Your task to perform on an android device: toggle notification dots Image 0: 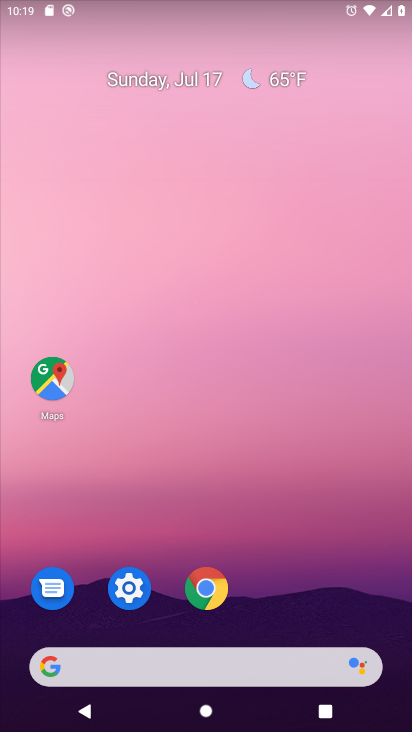
Step 0: click (296, 116)
Your task to perform on an android device: toggle notification dots Image 1: 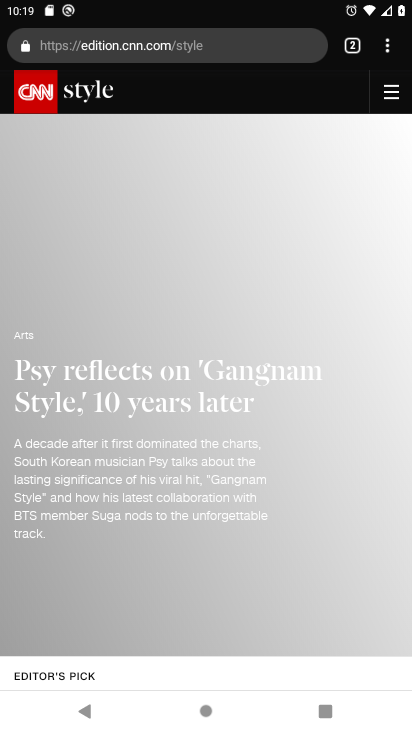
Step 1: click (388, 50)
Your task to perform on an android device: toggle notification dots Image 2: 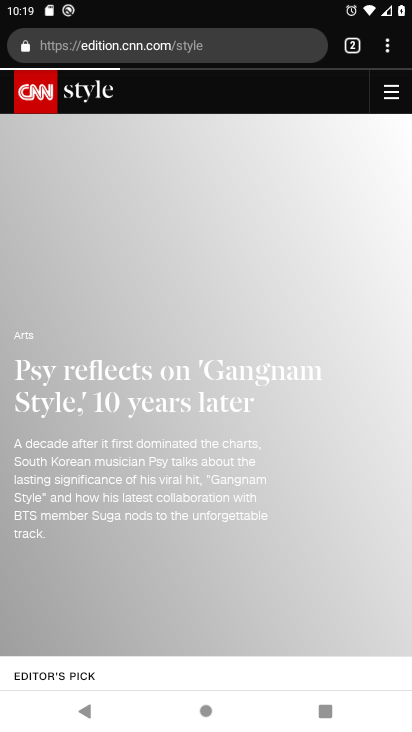
Step 2: press back button
Your task to perform on an android device: toggle notification dots Image 3: 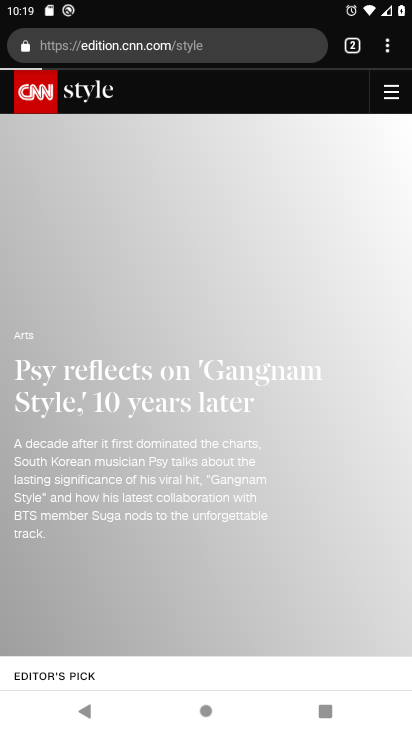
Step 3: press back button
Your task to perform on an android device: toggle notification dots Image 4: 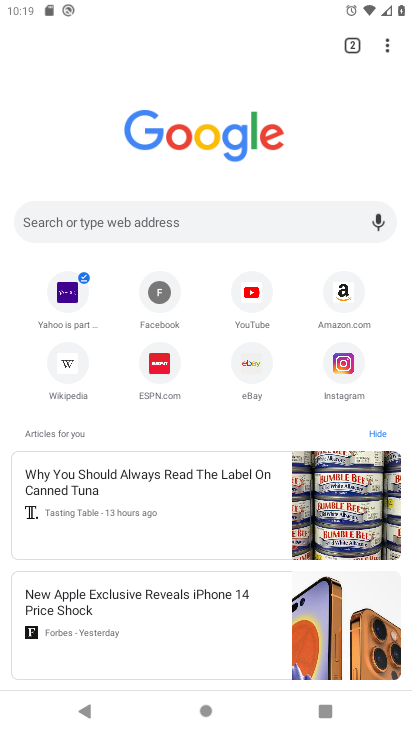
Step 4: press home button
Your task to perform on an android device: toggle notification dots Image 5: 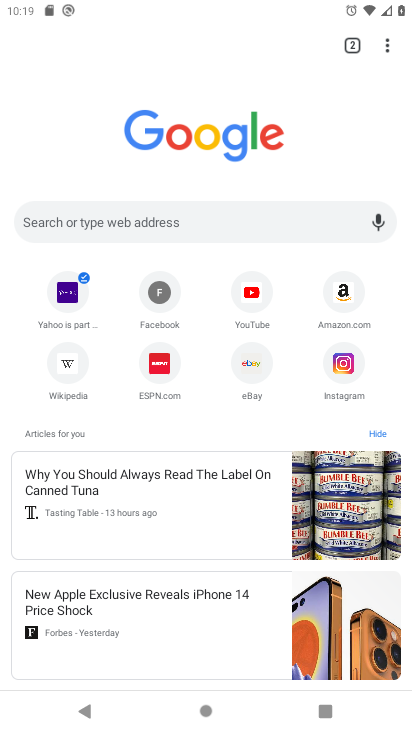
Step 5: press home button
Your task to perform on an android device: toggle notification dots Image 6: 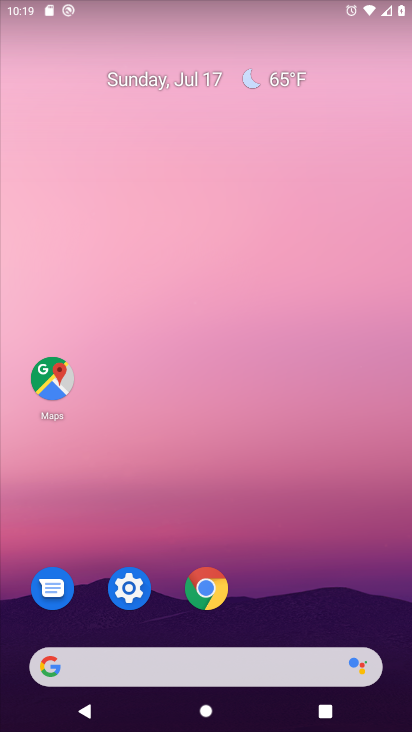
Step 6: drag from (235, 519) to (190, 94)
Your task to perform on an android device: toggle notification dots Image 7: 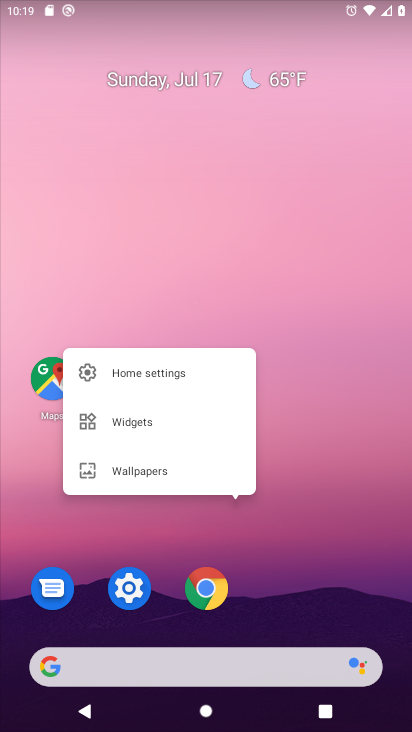
Step 7: drag from (213, 532) to (213, 24)
Your task to perform on an android device: toggle notification dots Image 8: 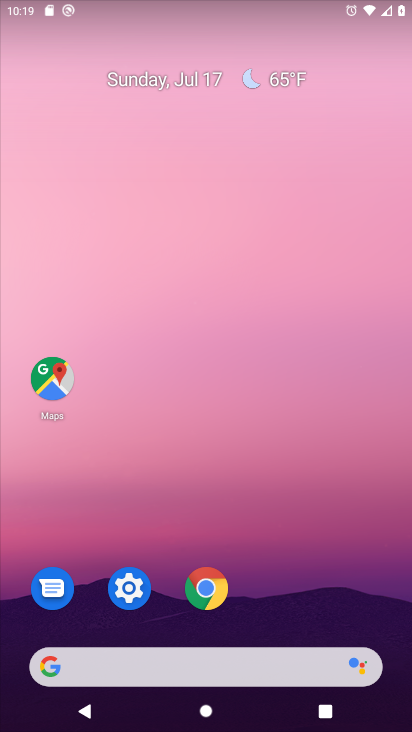
Step 8: drag from (221, 462) to (223, 40)
Your task to perform on an android device: toggle notification dots Image 9: 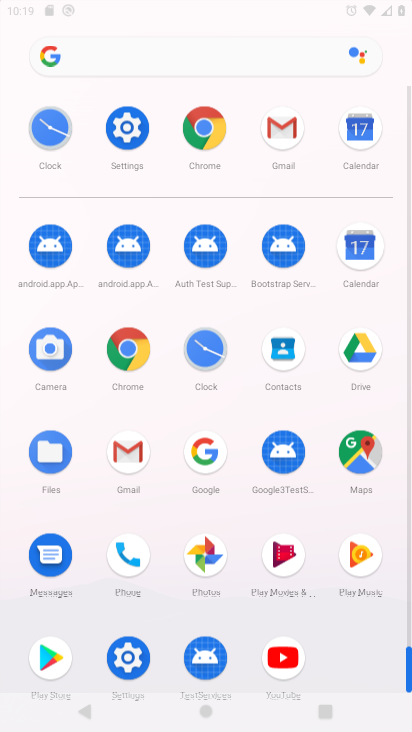
Step 9: drag from (280, 538) to (292, 2)
Your task to perform on an android device: toggle notification dots Image 10: 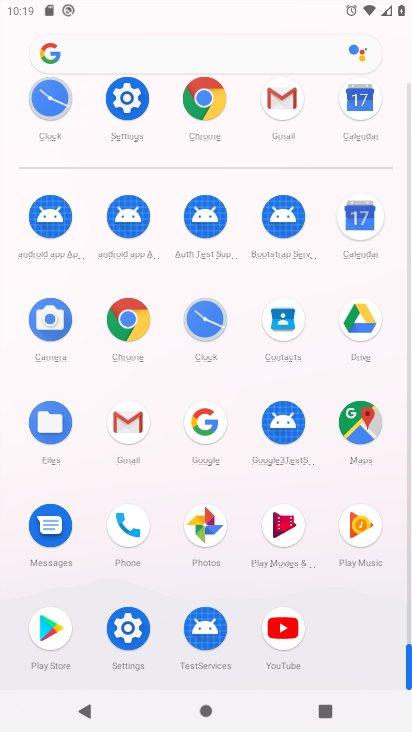
Step 10: click (131, 71)
Your task to perform on an android device: toggle notification dots Image 11: 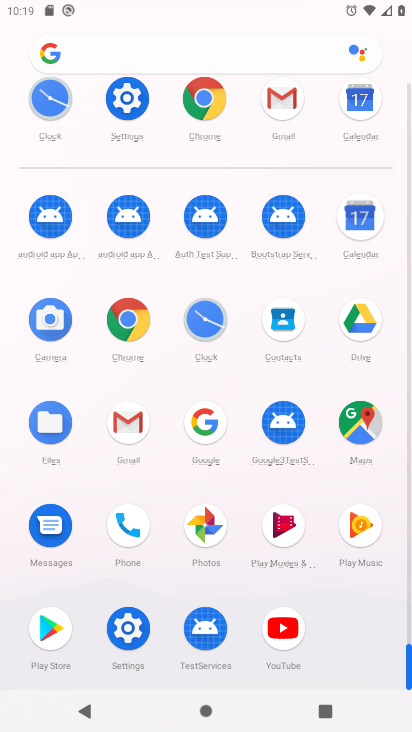
Step 11: click (132, 104)
Your task to perform on an android device: toggle notification dots Image 12: 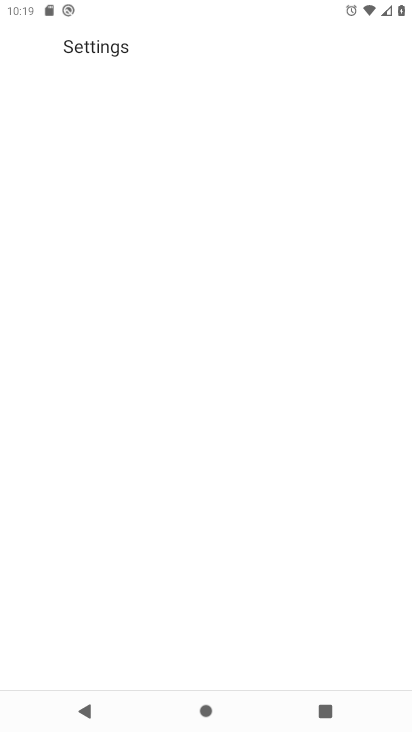
Step 12: click (136, 108)
Your task to perform on an android device: toggle notification dots Image 13: 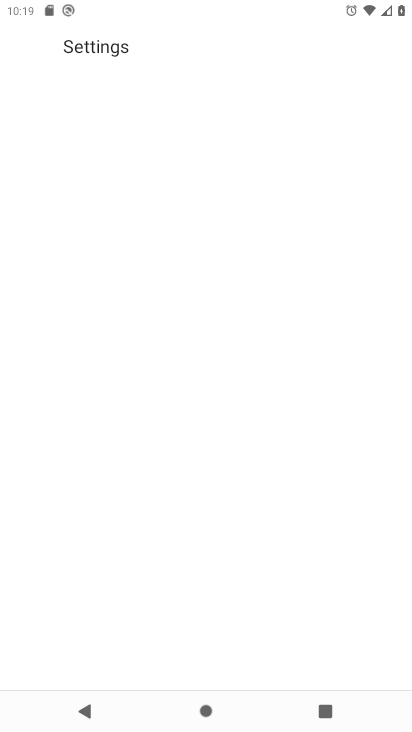
Step 13: click (136, 109)
Your task to perform on an android device: toggle notification dots Image 14: 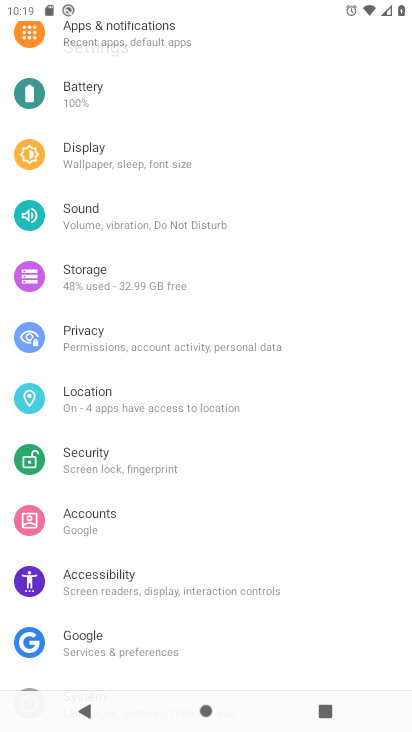
Step 14: click (136, 109)
Your task to perform on an android device: toggle notification dots Image 15: 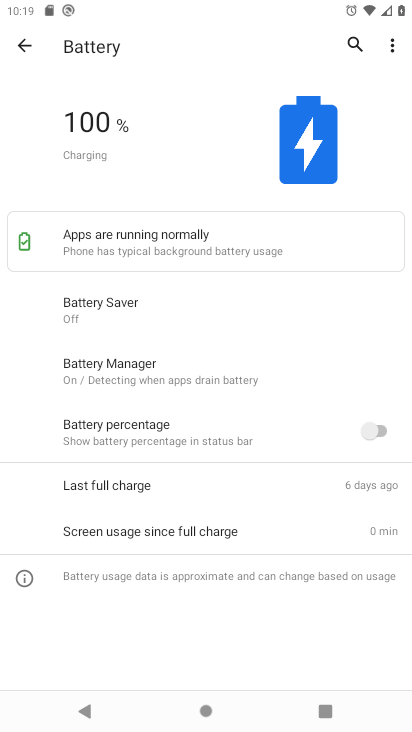
Step 15: click (19, 23)
Your task to perform on an android device: toggle notification dots Image 16: 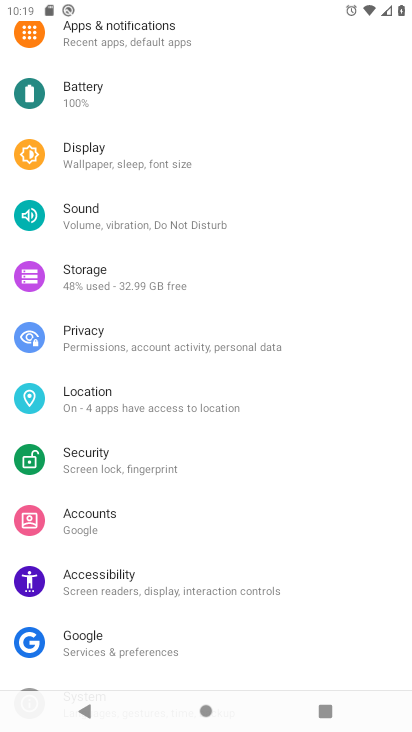
Step 16: click (19, 25)
Your task to perform on an android device: toggle notification dots Image 17: 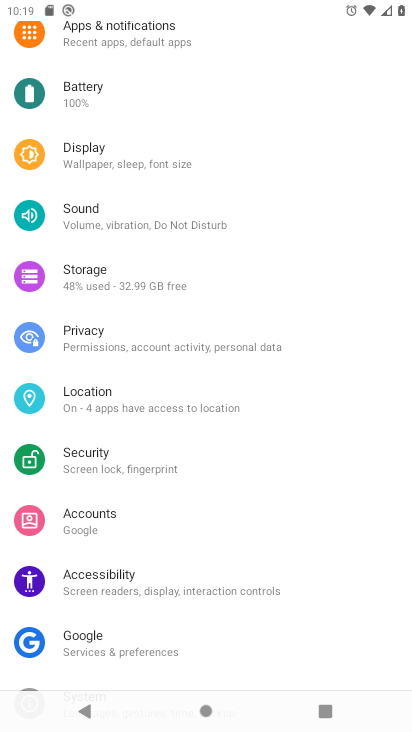
Step 17: click (22, 45)
Your task to perform on an android device: toggle notification dots Image 18: 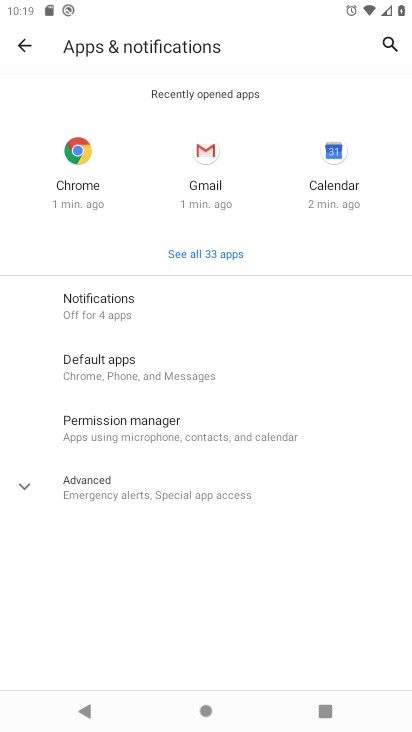
Step 18: click (89, 308)
Your task to perform on an android device: toggle notification dots Image 19: 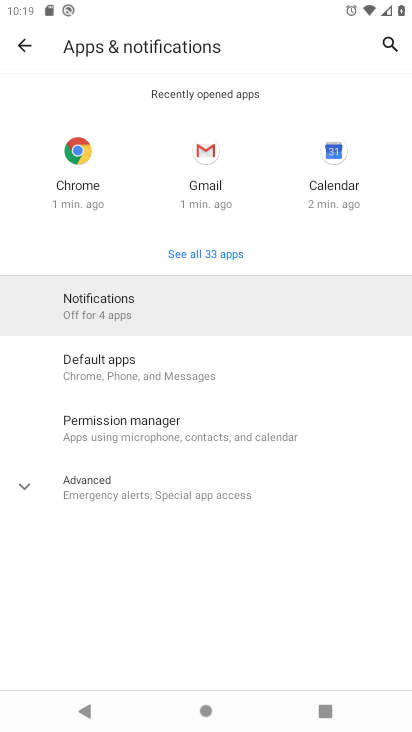
Step 19: click (91, 308)
Your task to perform on an android device: toggle notification dots Image 20: 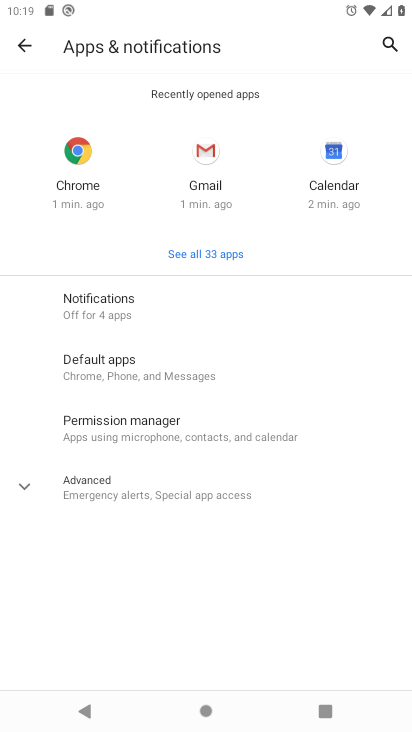
Step 20: click (92, 309)
Your task to perform on an android device: toggle notification dots Image 21: 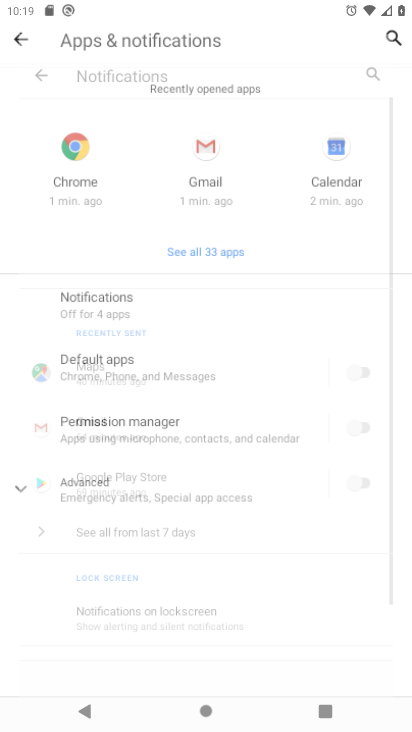
Step 21: click (91, 309)
Your task to perform on an android device: toggle notification dots Image 22: 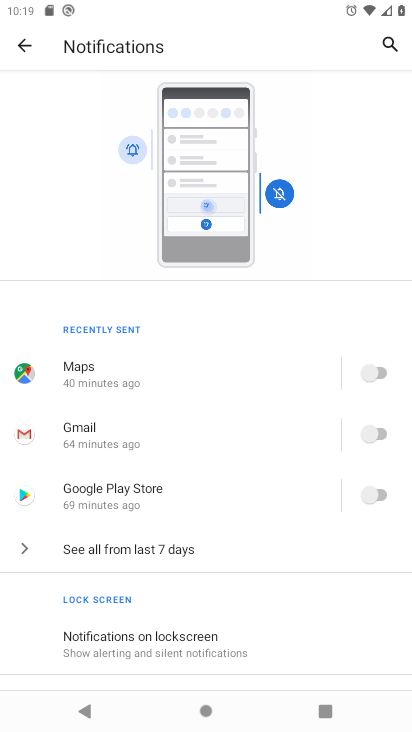
Step 22: drag from (298, 580) to (252, 255)
Your task to perform on an android device: toggle notification dots Image 23: 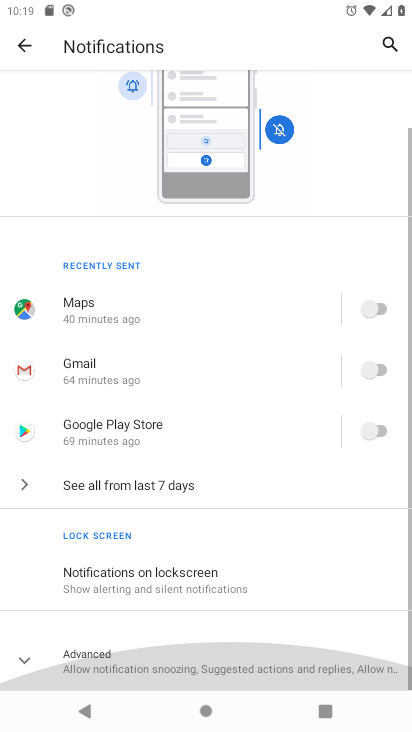
Step 23: drag from (273, 519) to (264, 114)
Your task to perform on an android device: toggle notification dots Image 24: 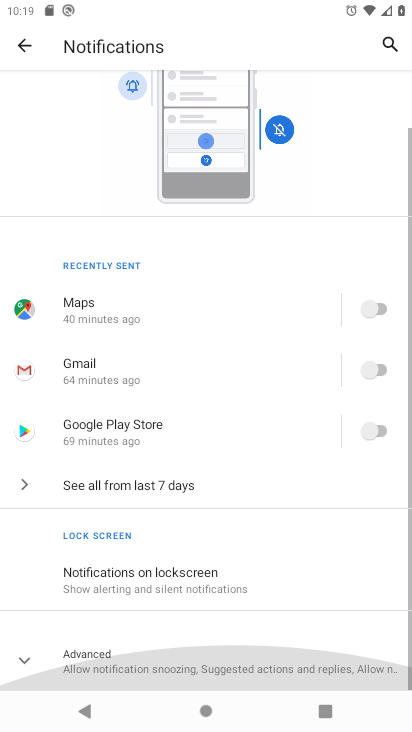
Step 24: drag from (265, 487) to (265, 196)
Your task to perform on an android device: toggle notification dots Image 25: 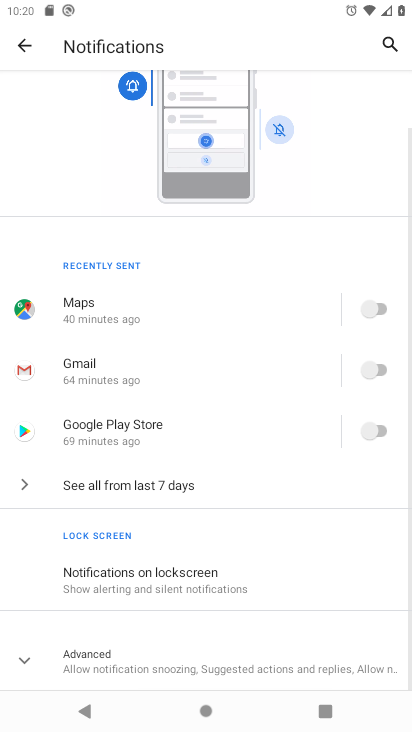
Step 25: drag from (244, 580) to (199, 161)
Your task to perform on an android device: toggle notification dots Image 26: 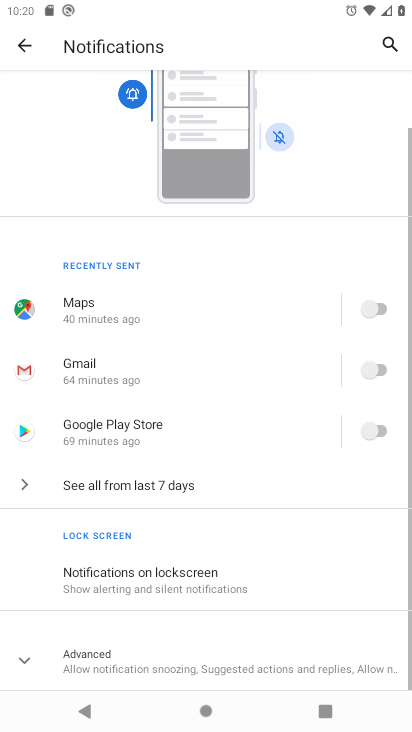
Step 26: click (119, 652)
Your task to perform on an android device: toggle notification dots Image 27: 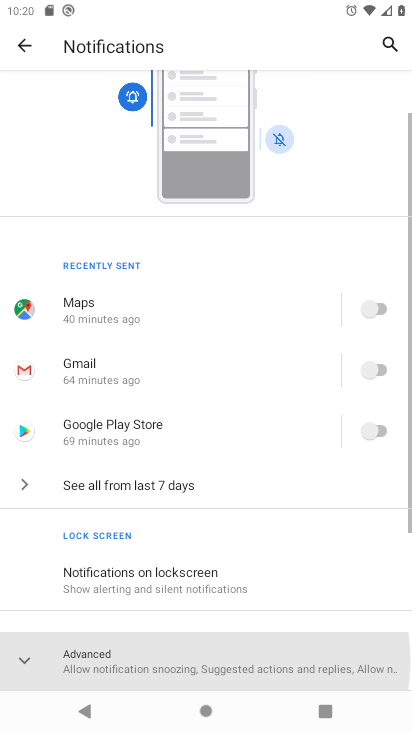
Step 27: click (100, 644)
Your task to perform on an android device: toggle notification dots Image 28: 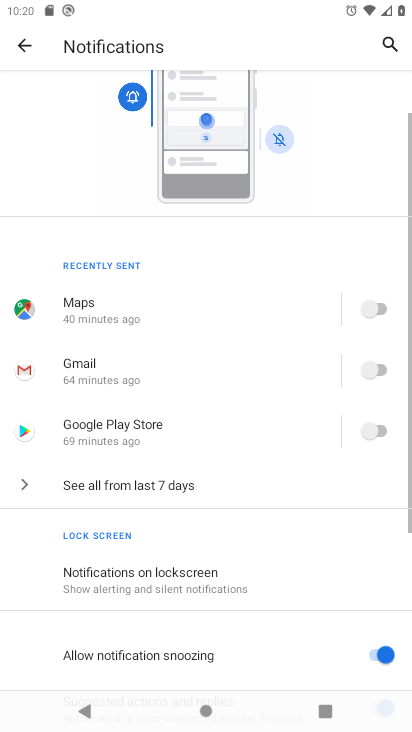
Step 28: drag from (203, 450) to (201, 291)
Your task to perform on an android device: toggle notification dots Image 29: 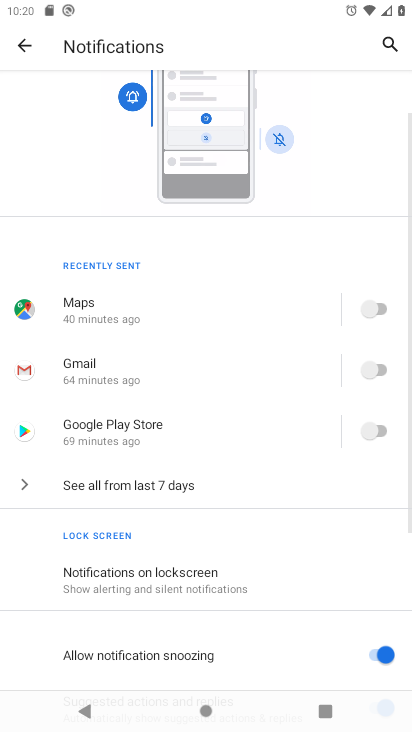
Step 29: drag from (237, 487) to (250, 248)
Your task to perform on an android device: toggle notification dots Image 30: 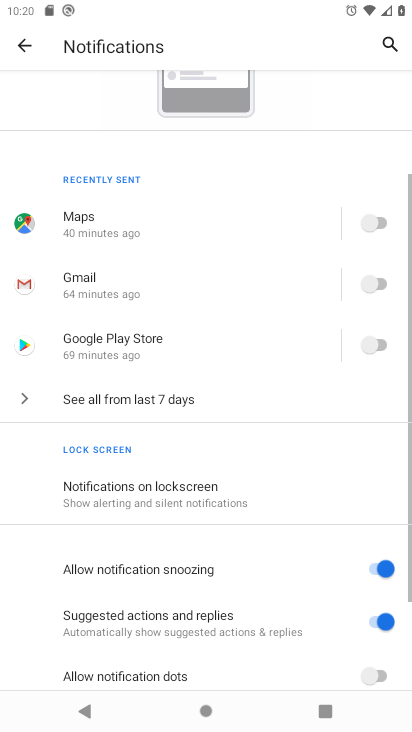
Step 30: drag from (243, 473) to (238, 143)
Your task to perform on an android device: toggle notification dots Image 31: 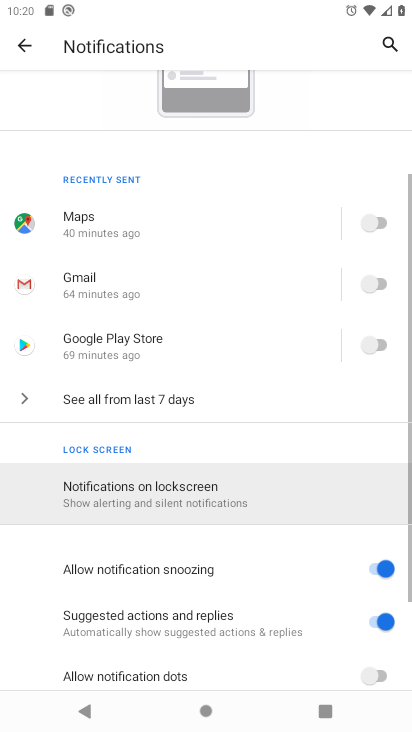
Step 31: drag from (188, 546) to (204, 343)
Your task to perform on an android device: toggle notification dots Image 32: 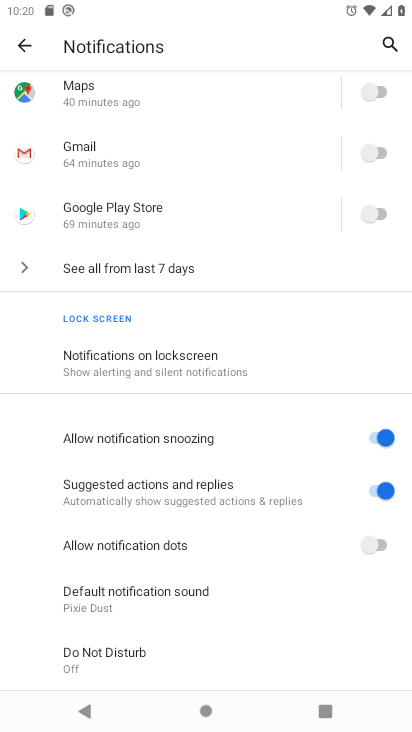
Step 32: click (374, 532)
Your task to perform on an android device: toggle notification dots Image 33: 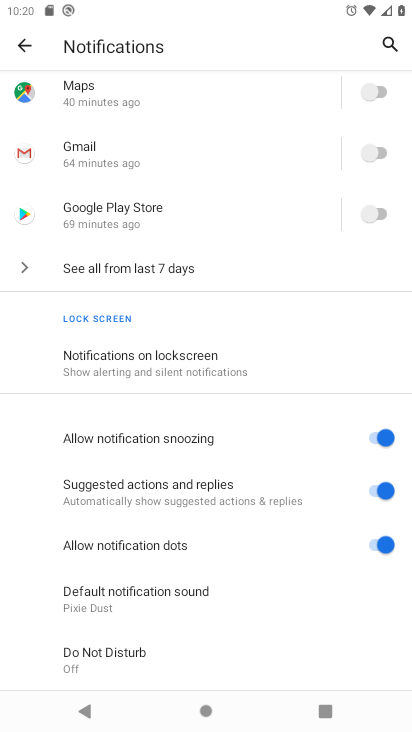
Step 33: task complete